Your task to perform on an android device: install app "Google Play services" Image 0: 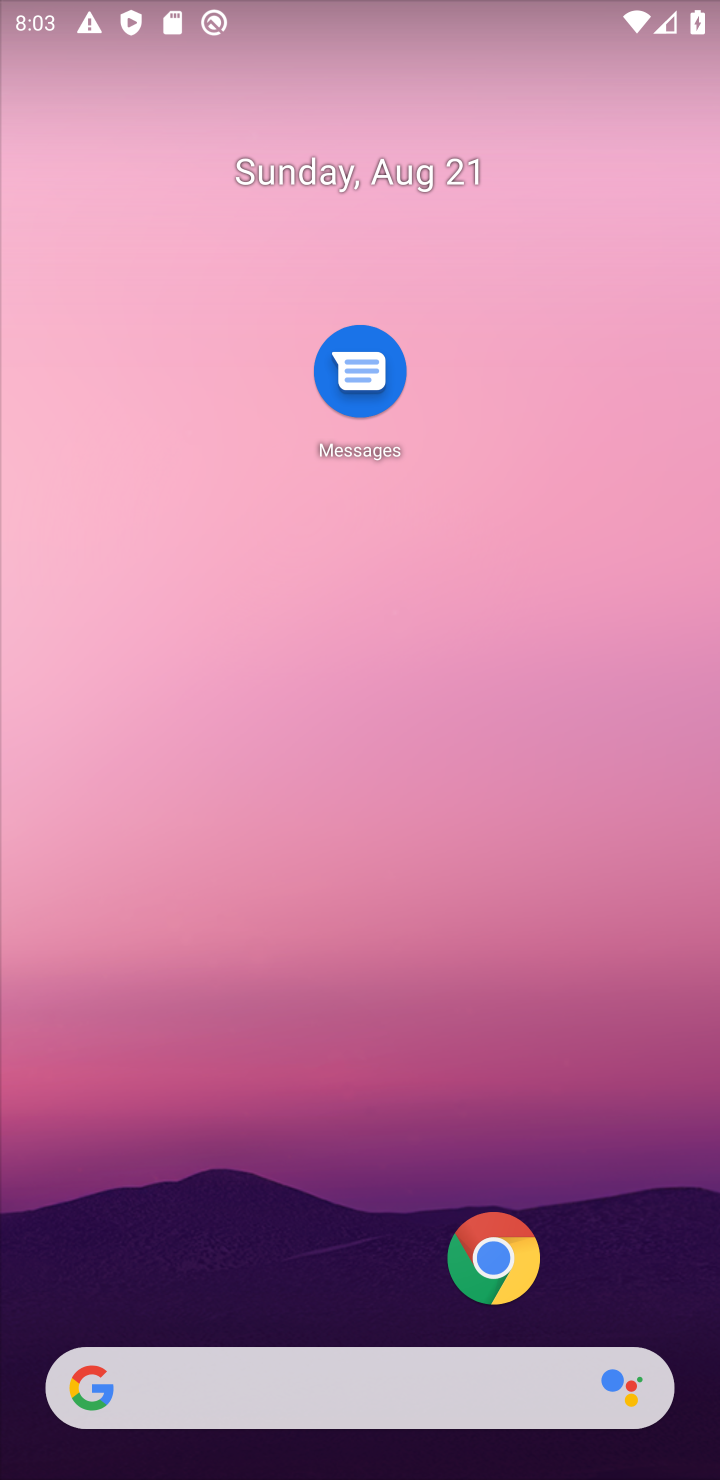
Step 0: drag from (371, 1002) to (540, 71)
Your task to perform on an android device: install app "Google Play services" Image 1: 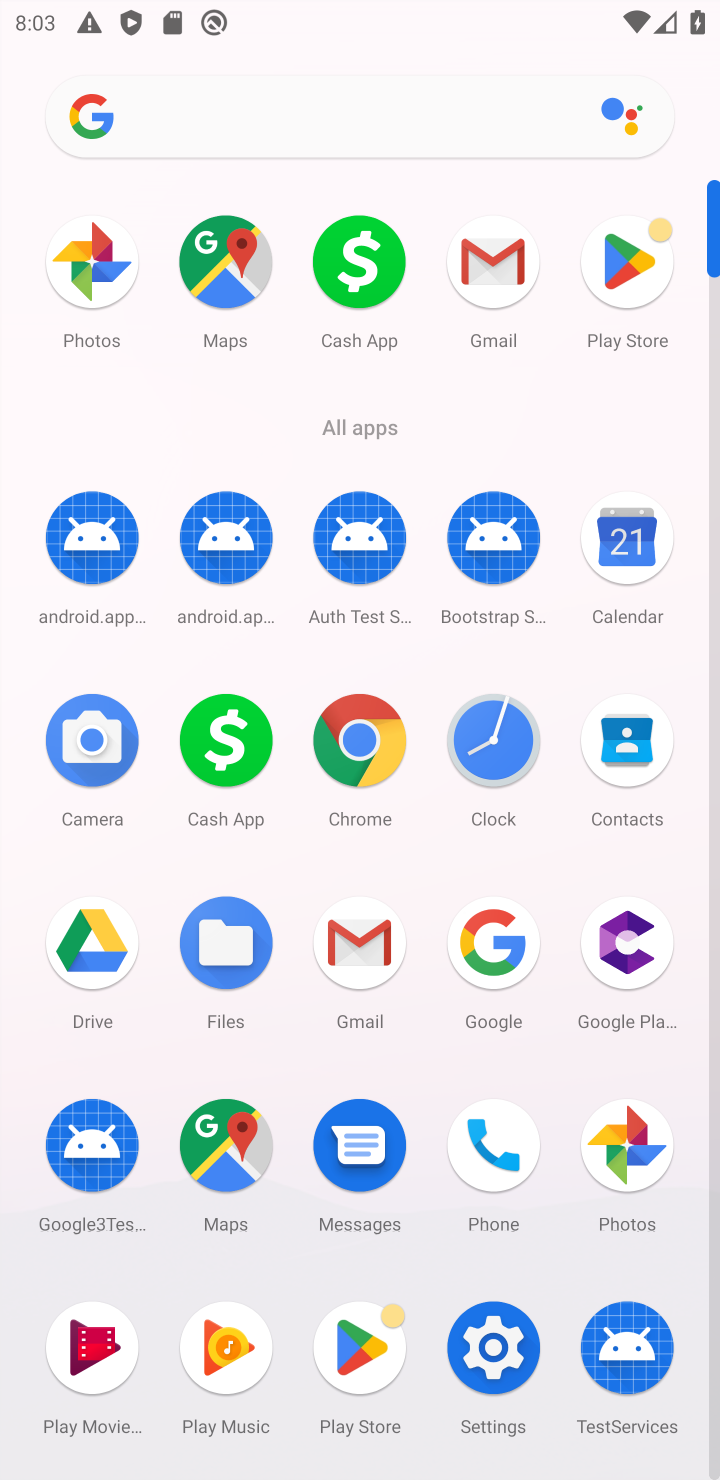
Step 1: click (637, 250)
Your task to perform on an android device: install app "Google Play services" Image 2: 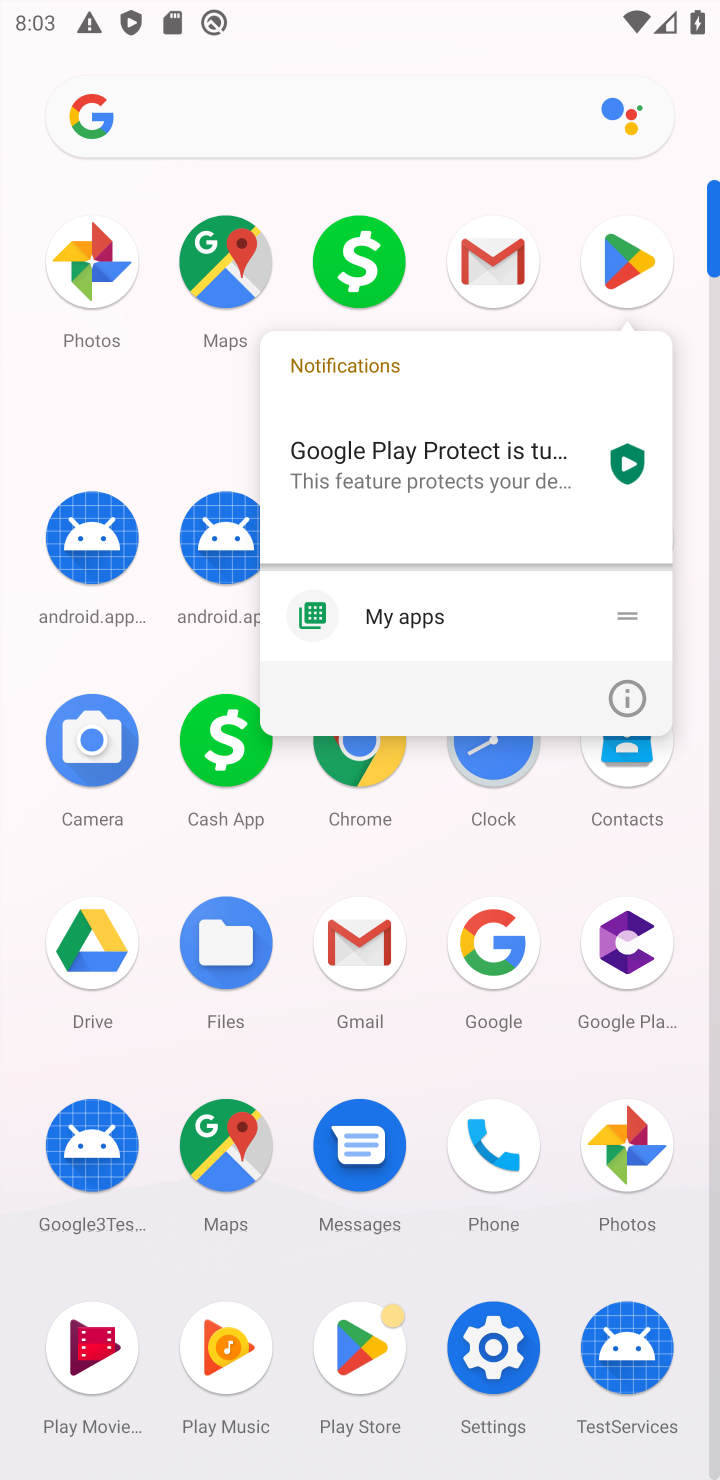
Step 2: click (637, 271)
Your task to perform on an android device: install app "Google Play services" Image 3: 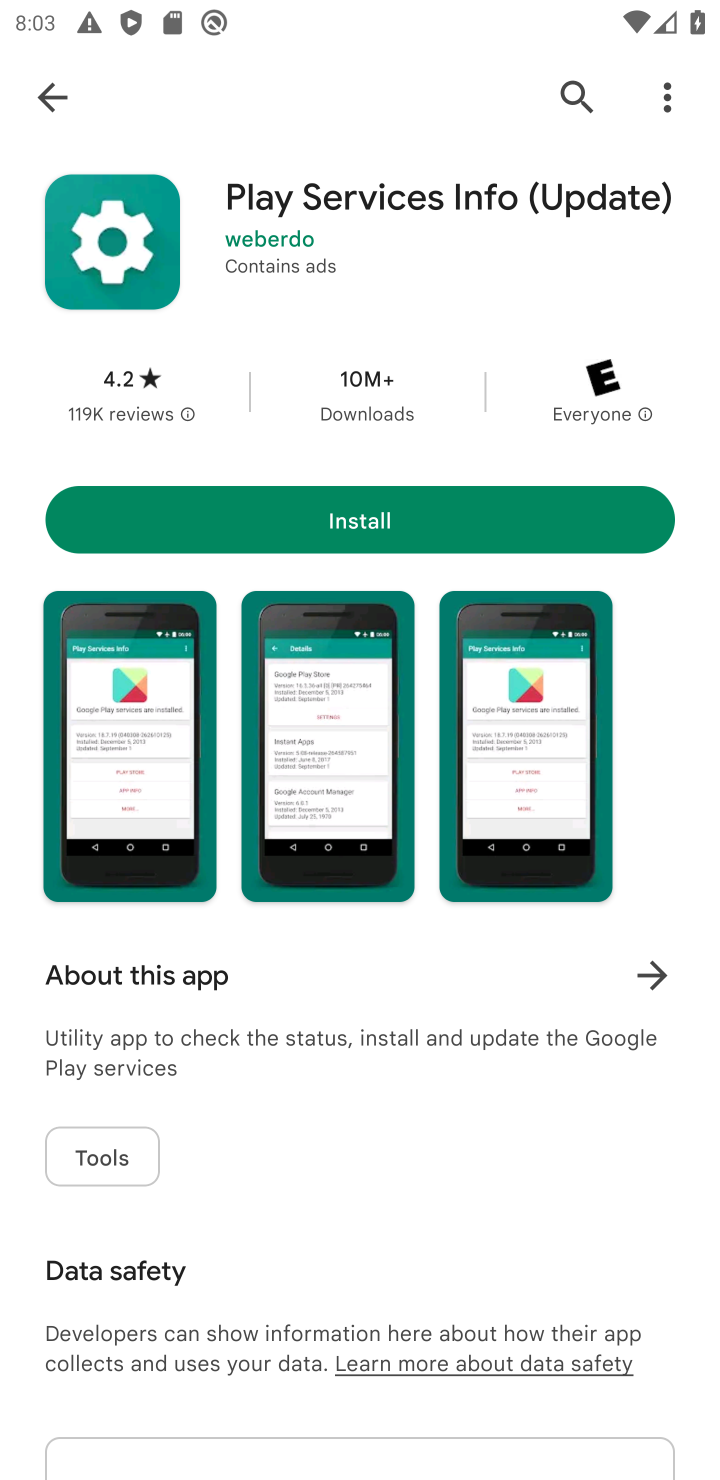
Step 3: click (53, 98)
Your task to perform on an android device: install app "Google Play services" Image 4: 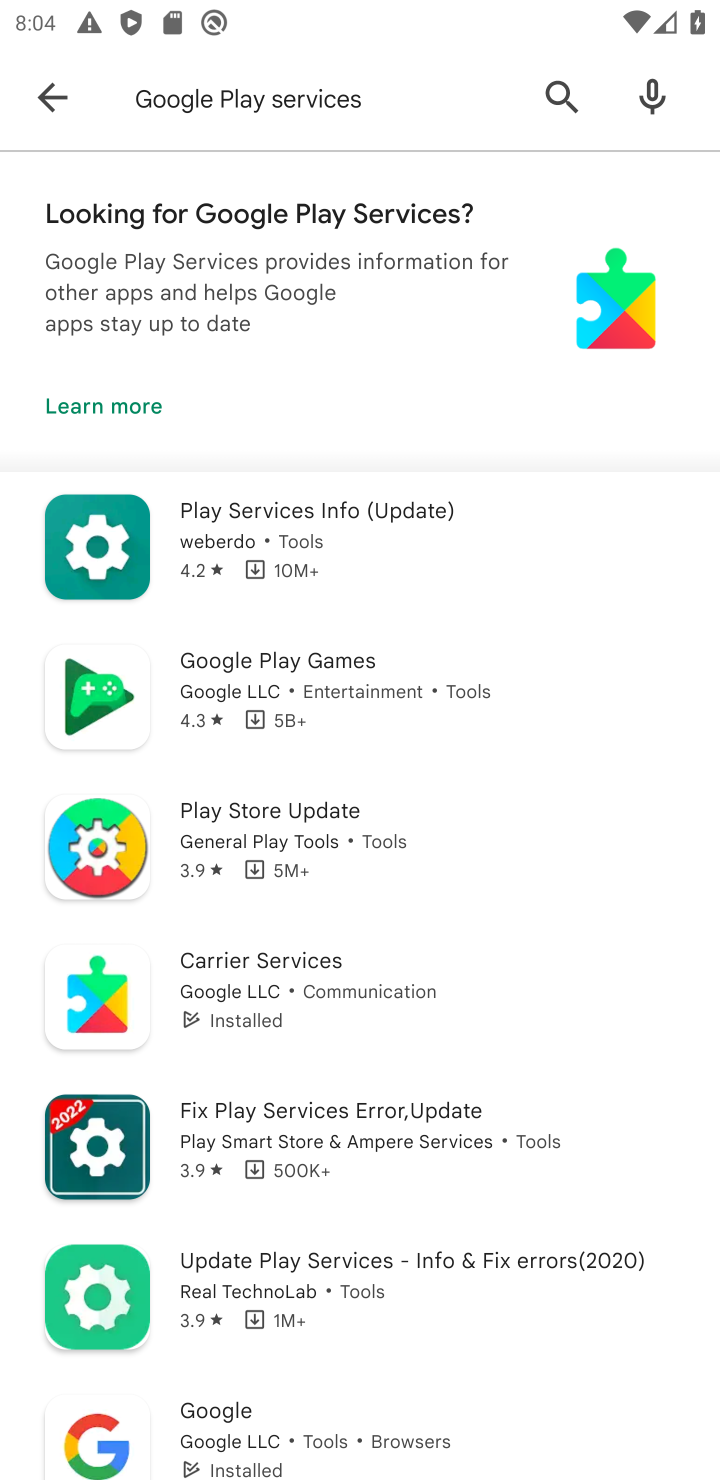
Step 4: click (61, 111)
Your task to perform on an android device: install app "Google Play services" Image 5: 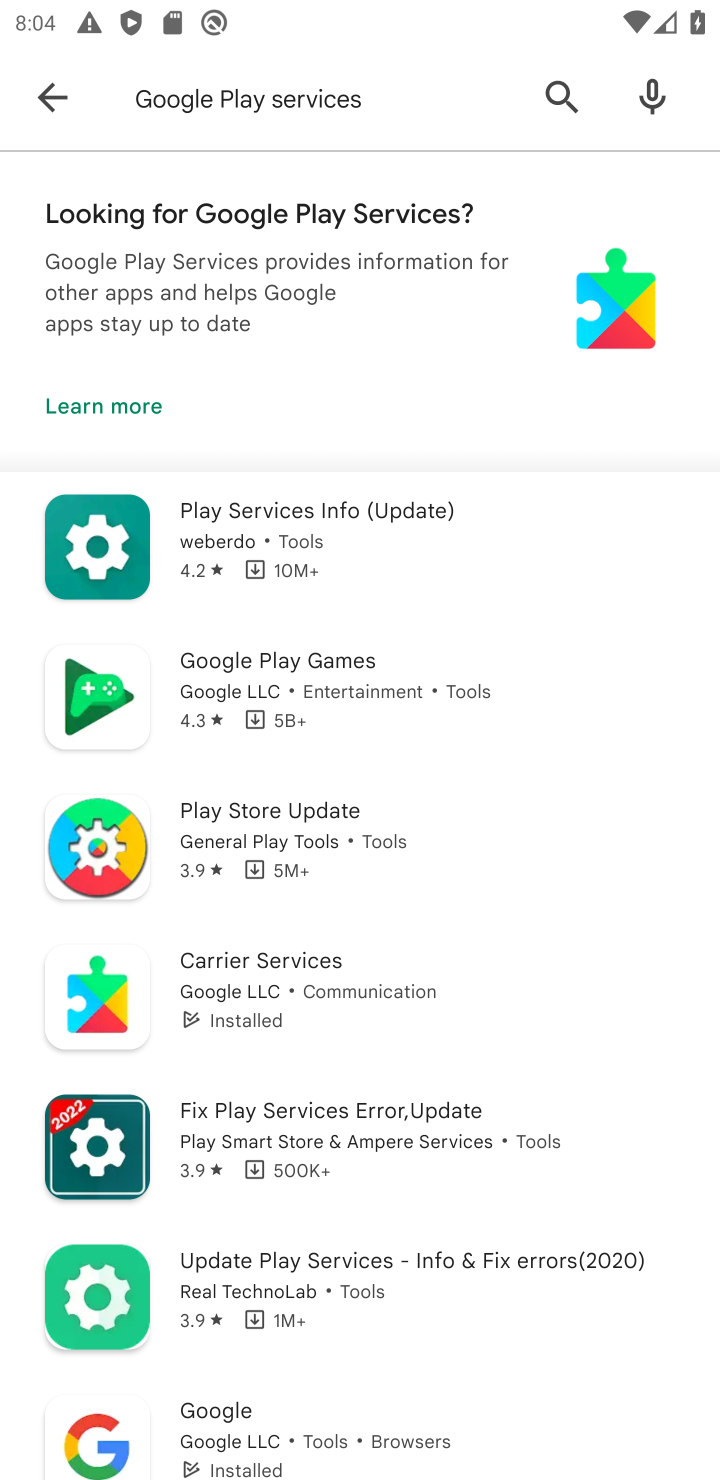
Step 5: click (60, 107)
Your task to perform on an android device: install app "Google Play services" Image 6: 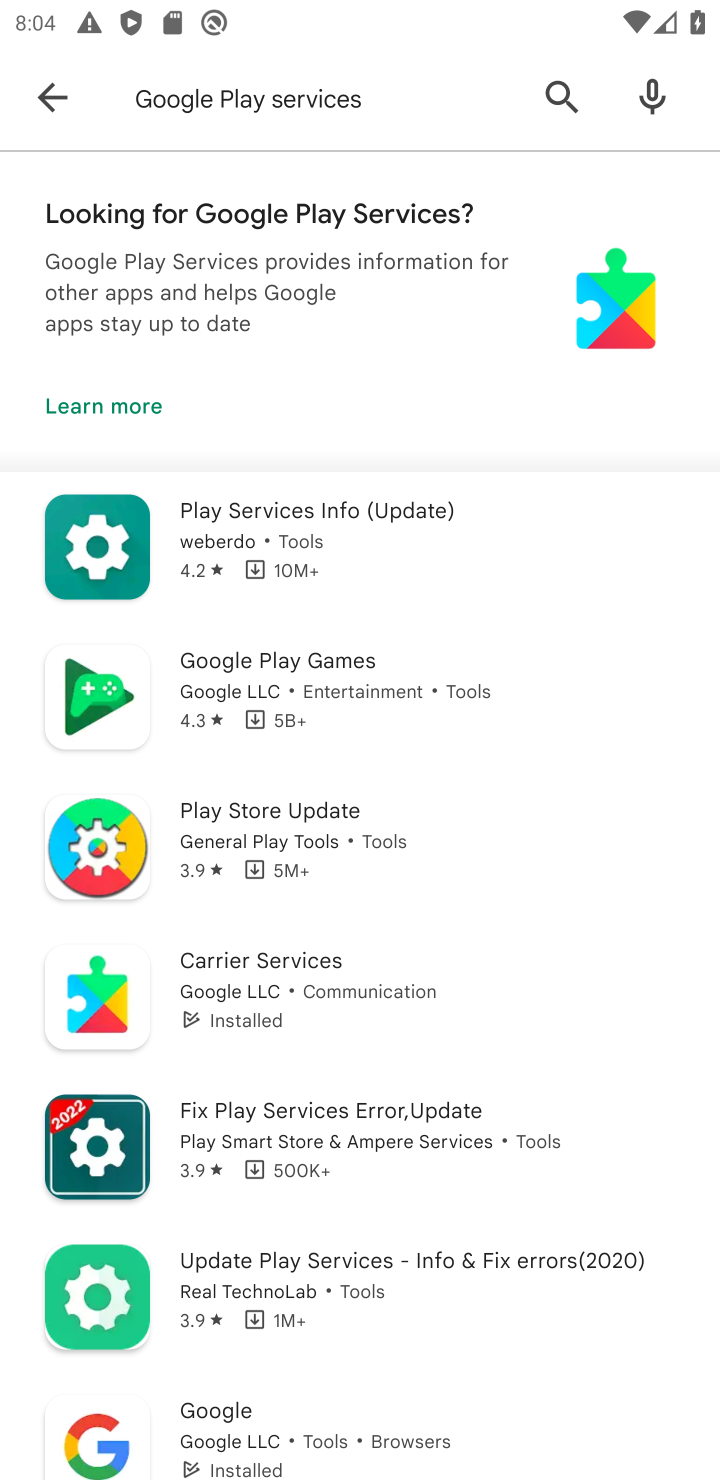
Step 6: press back button
Your task to perform on an android device: install app "Google Play services" Image 7: 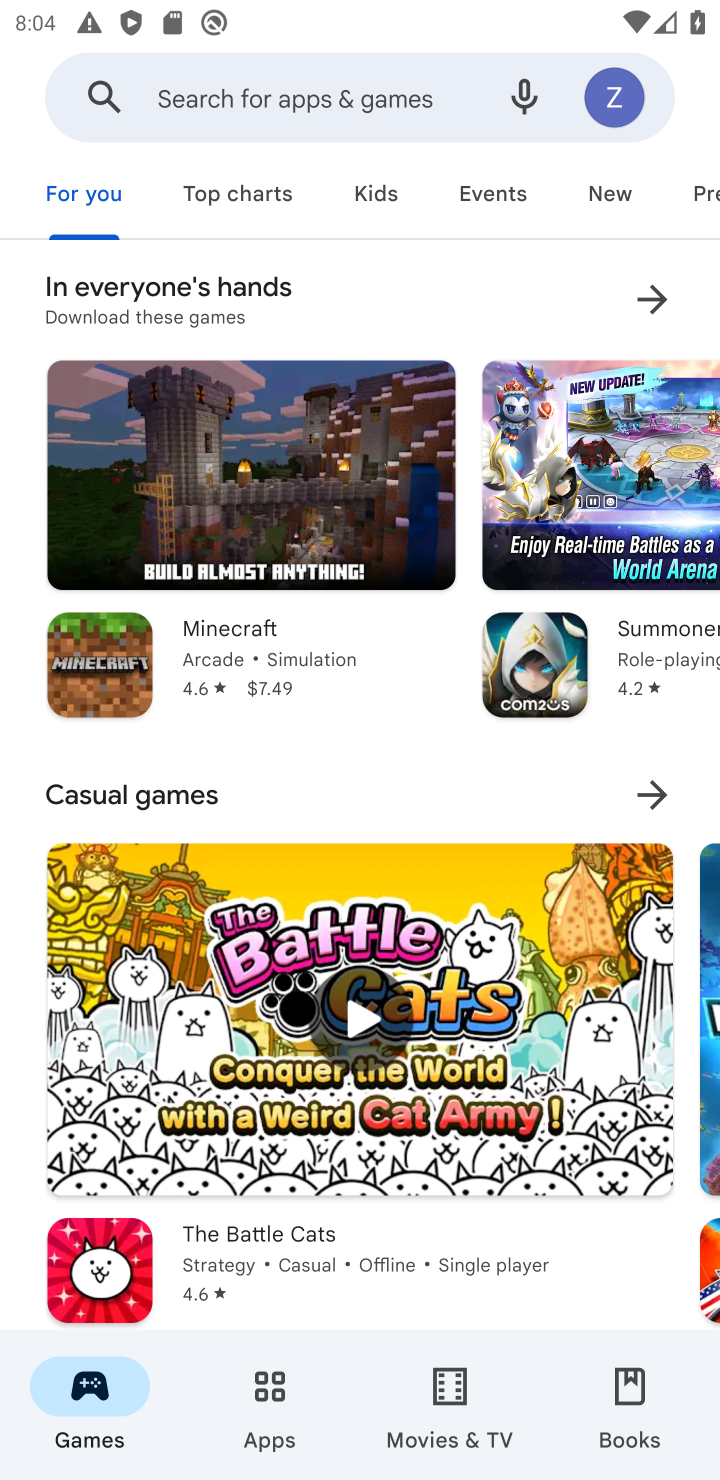
Step 7: click (252, 128)
Your task to perform on an android device: install app "Google Play services" Image 8: 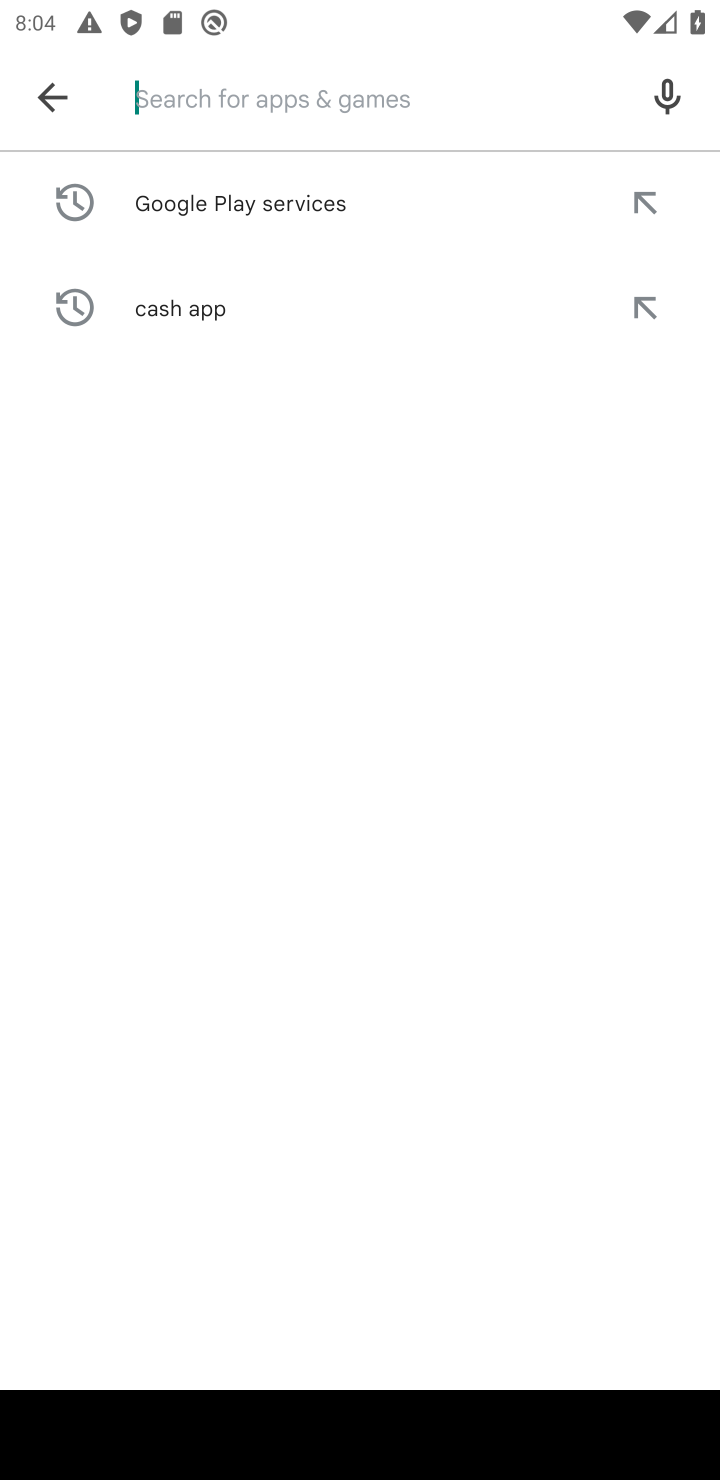
Step 8: type "Google Play services"
Your task to perform on an android device: install app "Google Play services" Image 9: 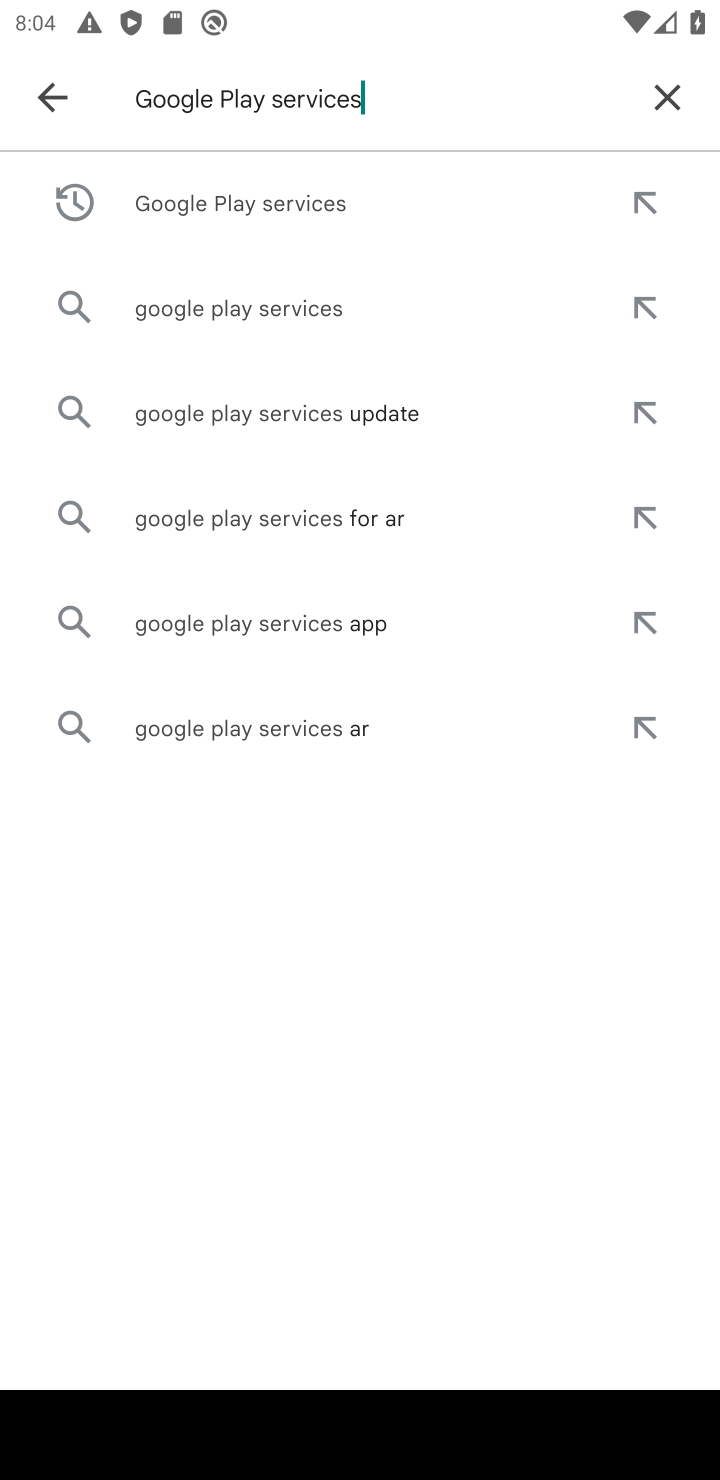
Step 9: click (209, 224)
Your task to perform on an android device: install app "Google Play services" Image 10: 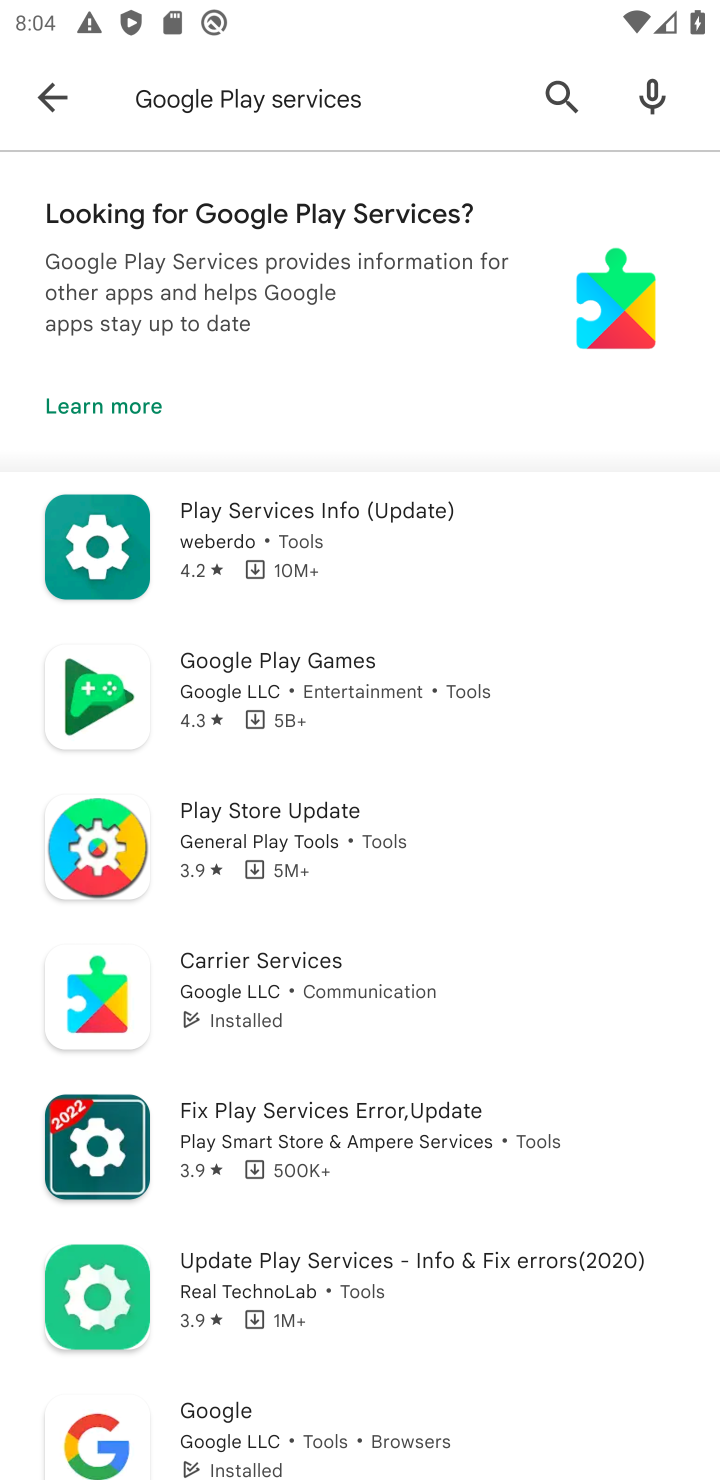
Step 10: click (223, 544)
Your task to perform on an android device: install app "Google Play services" Image 11: 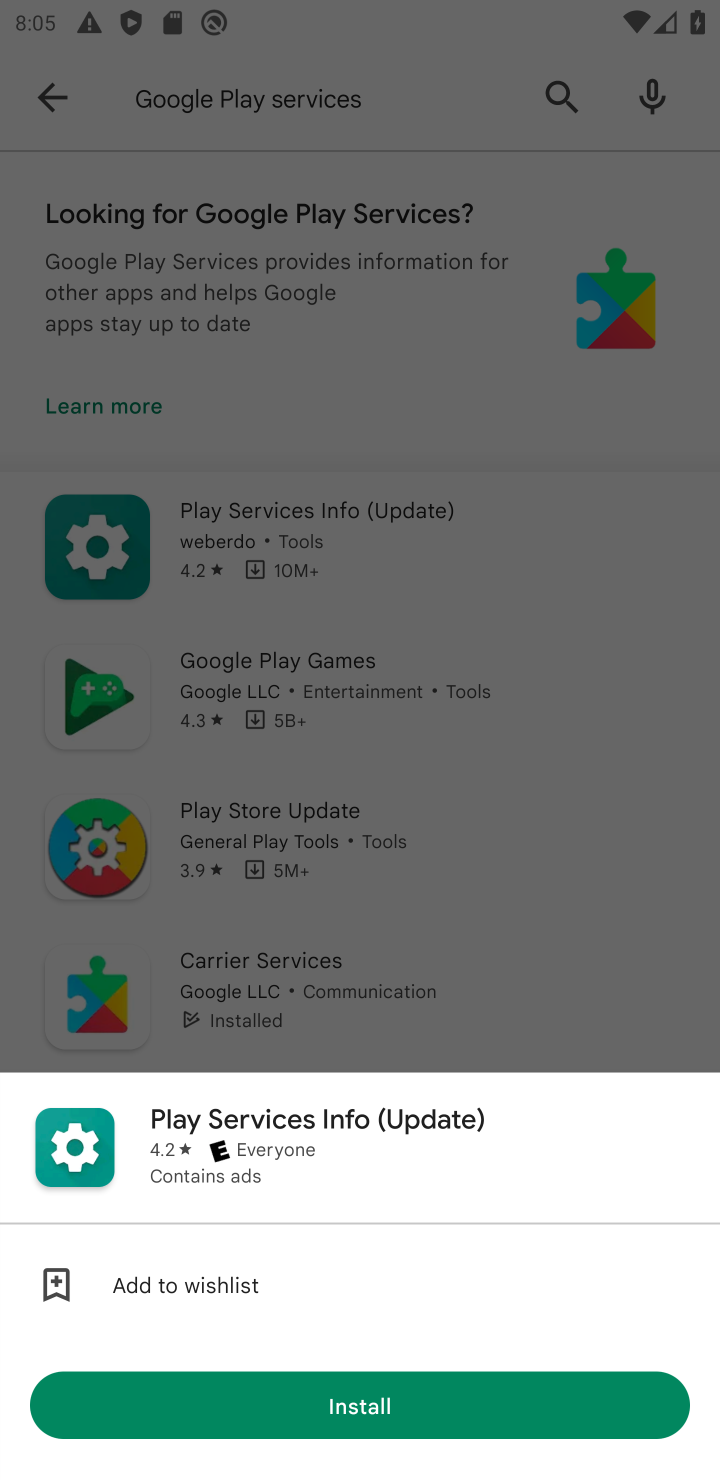
Step 11: click (311, 1419)
Your task to perform on an android device: install app "Google Play services" Image 12: 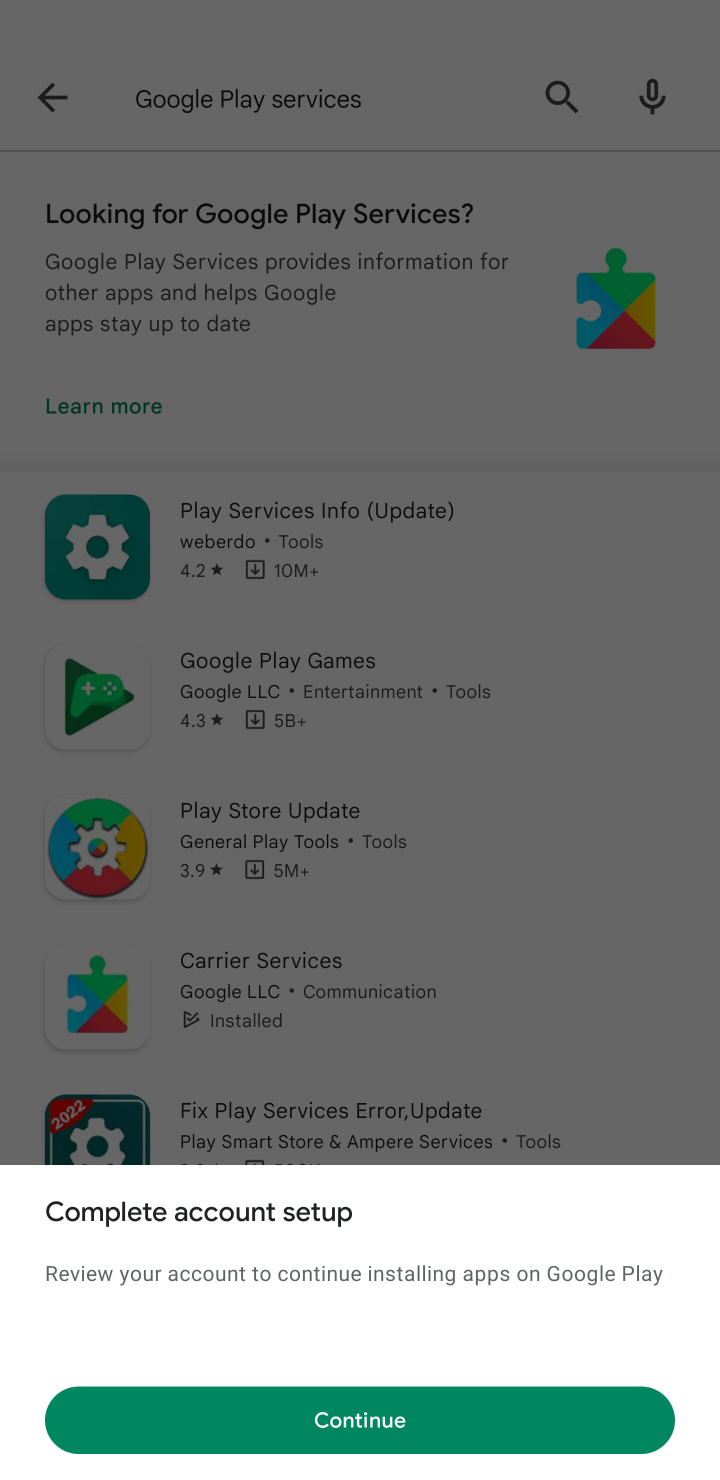
Step 12: click (397, 1401)
Your task to perform on an android device: install app "Google Play services" Image 13: 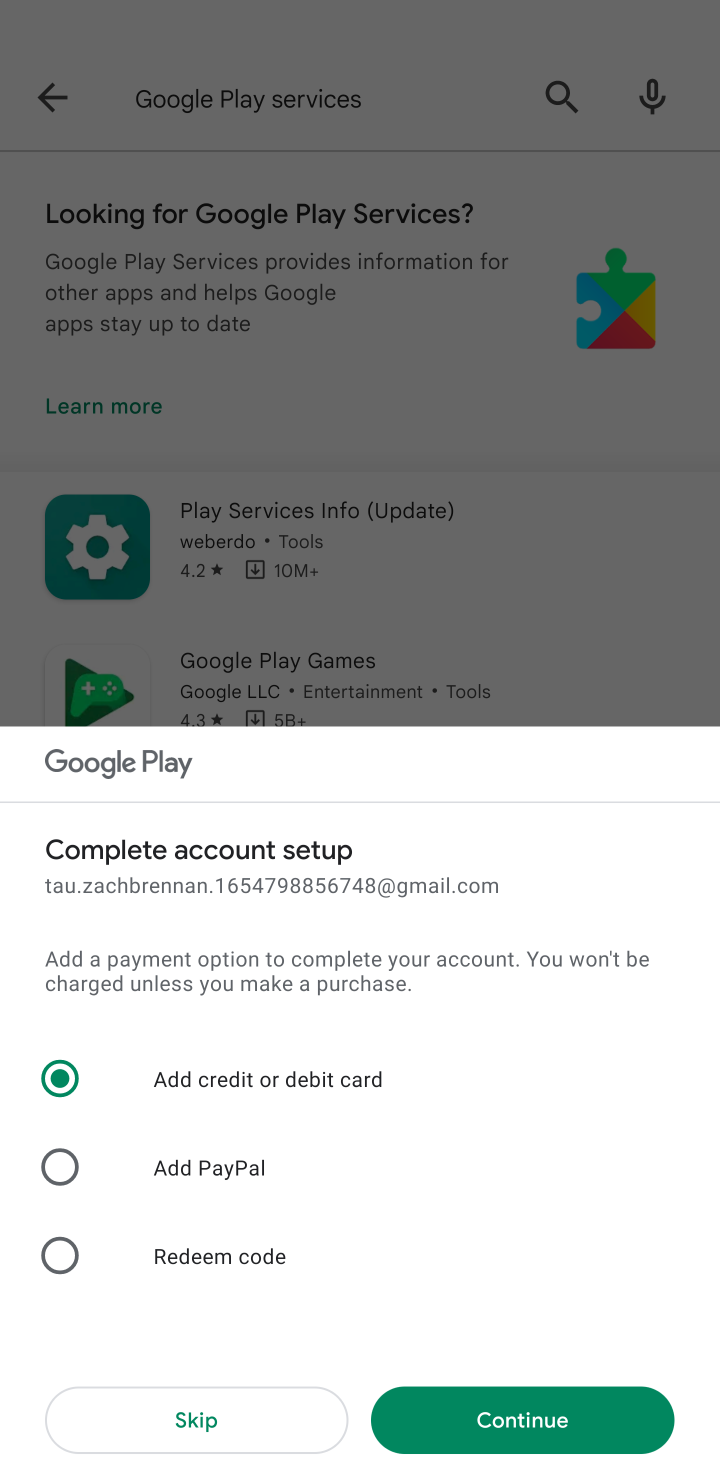
Step 13: click (160, 1437)
Your task to perform on an android device: install app "Google Play services" Image 14: 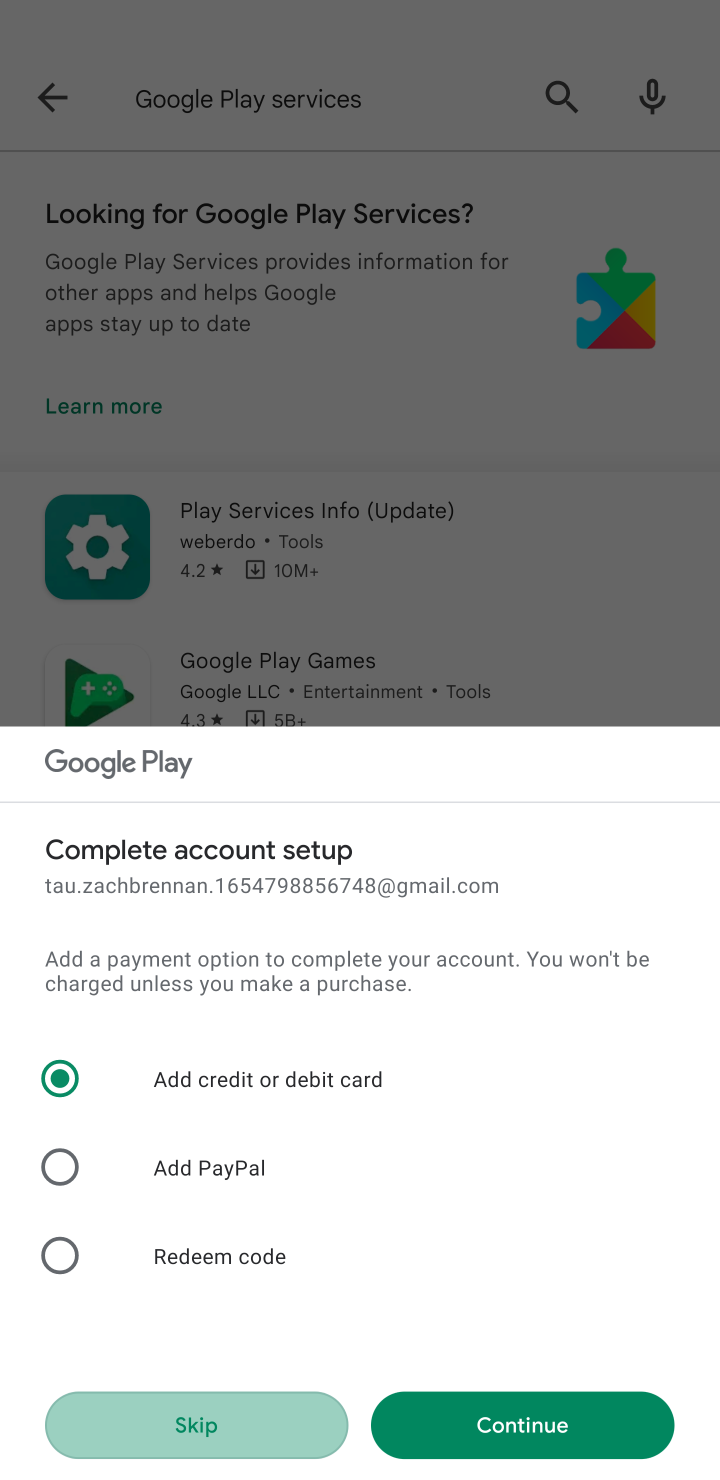
Step 14: click (179, 1420)
Your task to perform on an android device: install app "Google Play services" Image 15: 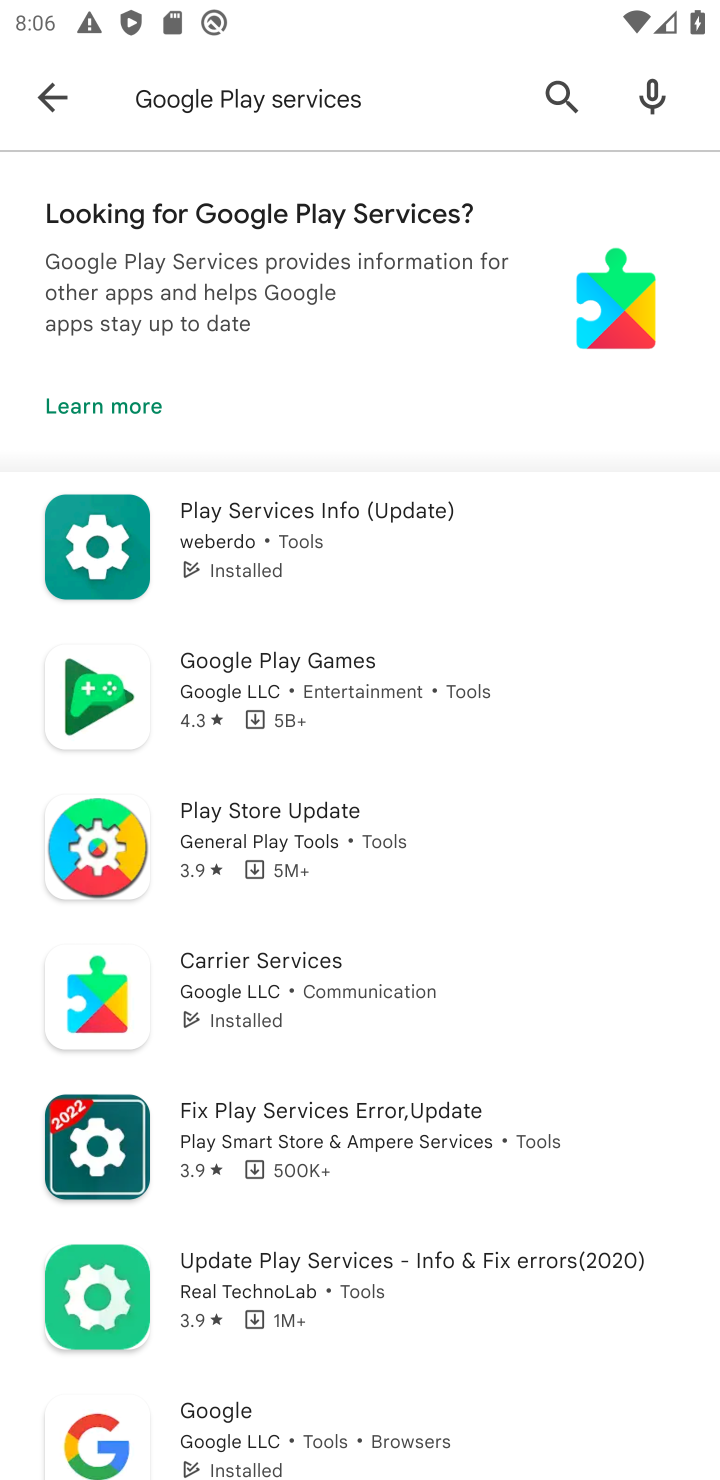
Step 15: click (203, 583)
Your task to perform on an android device: install app "Google Play services" Image 16: 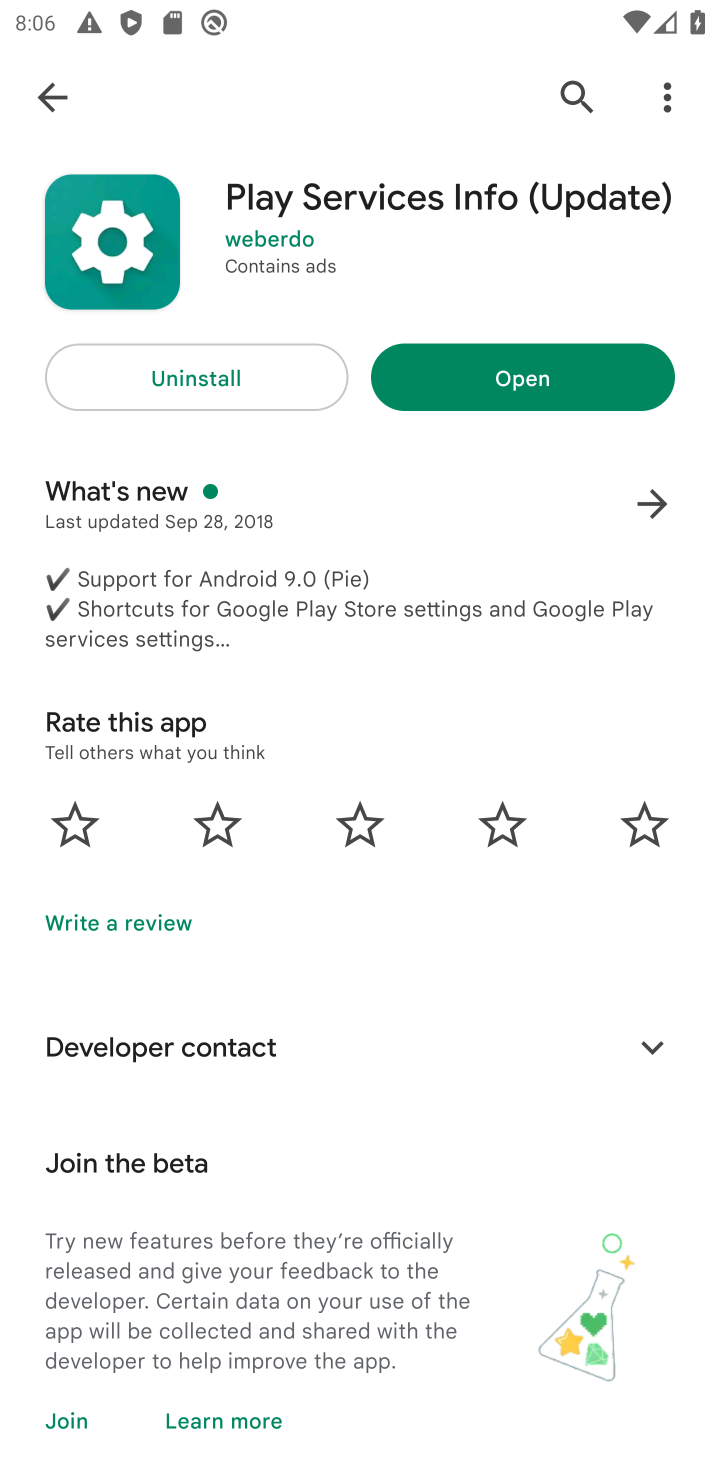
Step 16: click (533, 385)
Your task to perform on an android device: install app "Google Play services" Image 17: 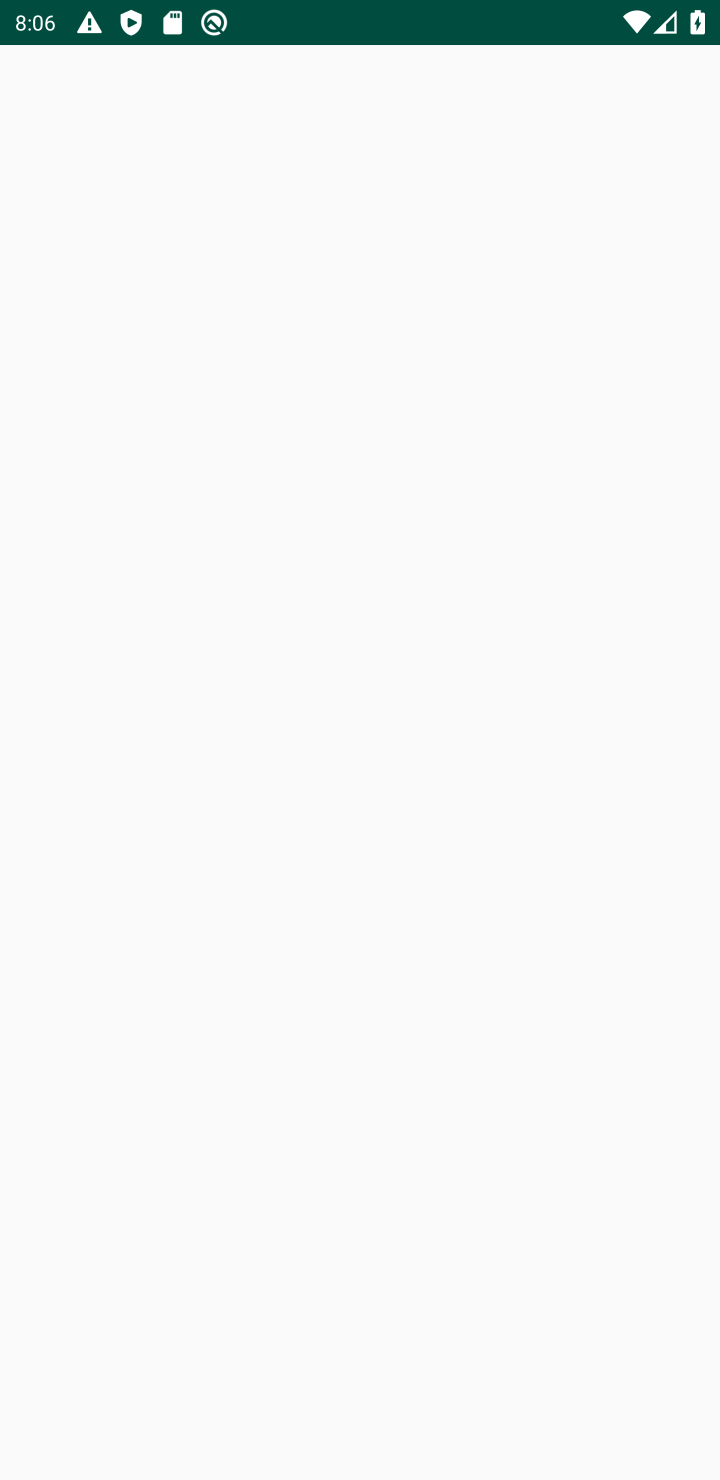
Step 17: task complete